Your task to perform on an android device: What's the weather going to be tomorrow? Image 0: 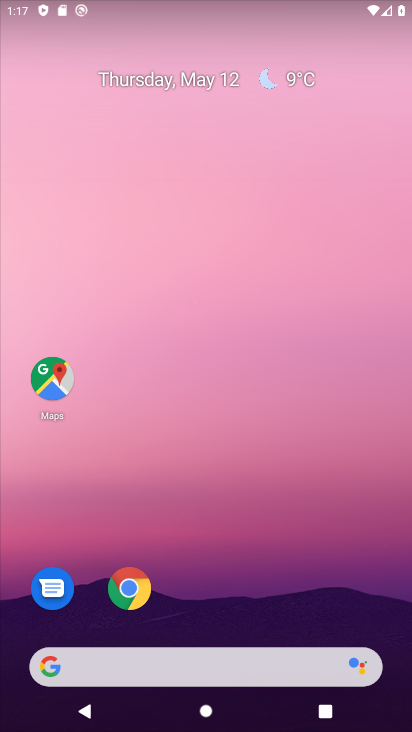
Step 0: click (298, 81)
Your task to perform on an android device: What's the weather going to be tomorrow? Image 1: 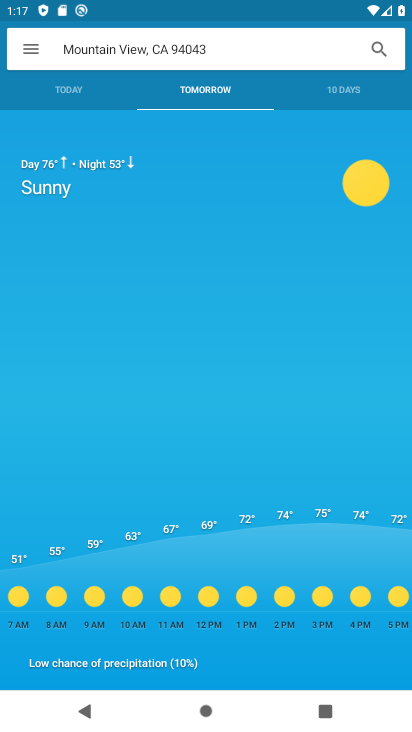
Step 1: task complete